Your task to perform on an android device: turn on location history Image 0: 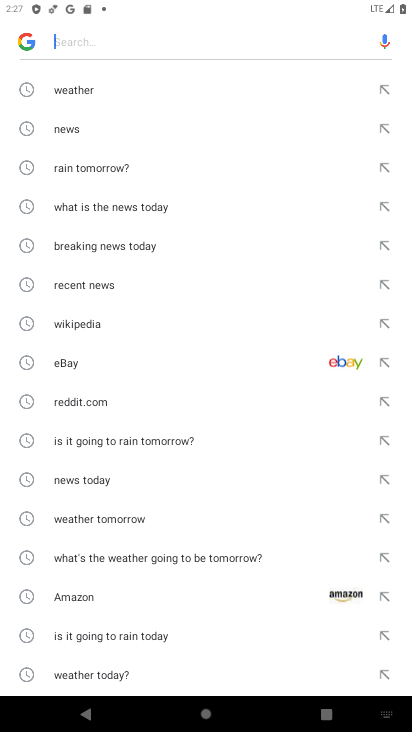
Step 0: press back button
Your task to perform on an android device: turn on location history Image 1: 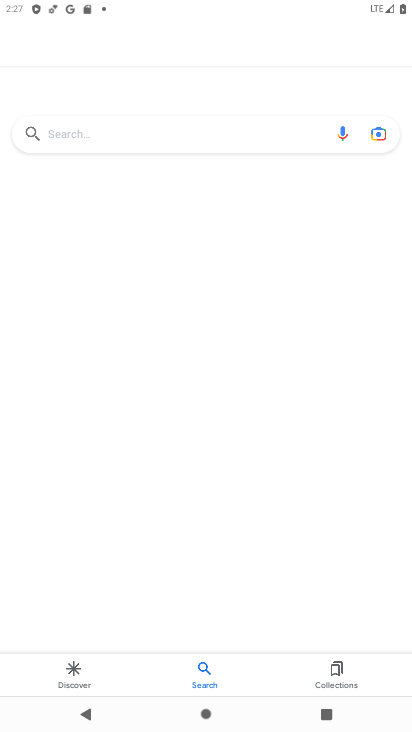
Step 1: press back button
Your task to perform on an android device: turn on location history Image 2: 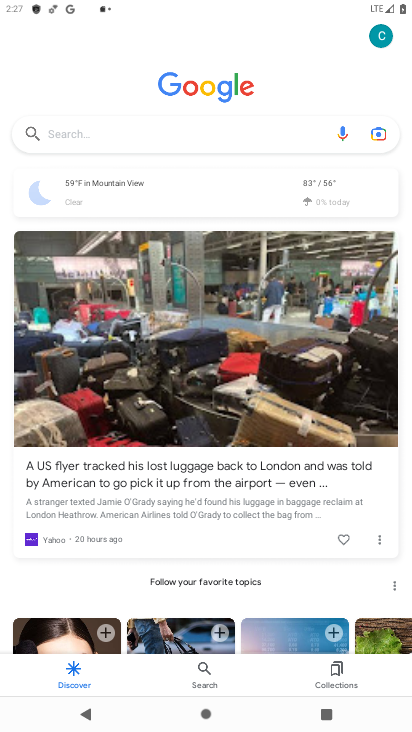
Step 2: press back button
Your task to perform on an android device: turn on location history Image 3: 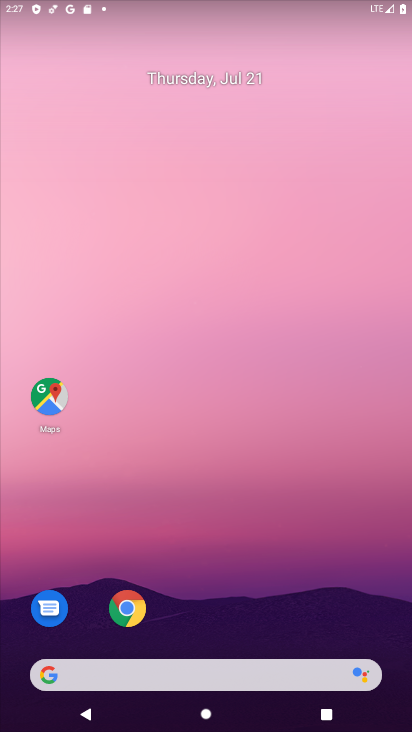
Step 3: drag from (216, 668) to (252, 10)
Your task to perform on an android device: turn on location history Image 4: 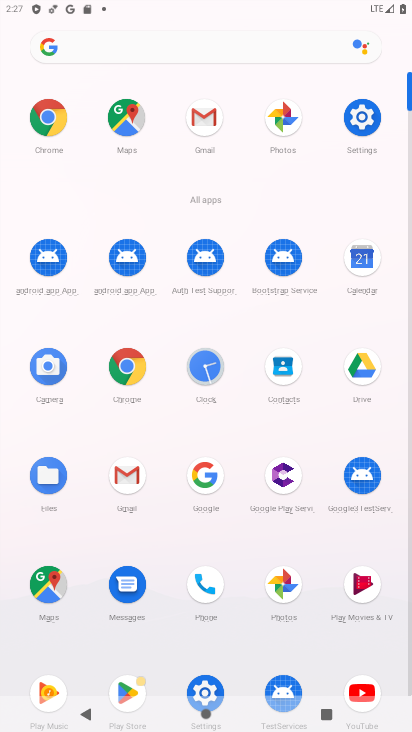
Step 4: click (356, 108)
Your task to perform on an android device: turn on location history Image 5: 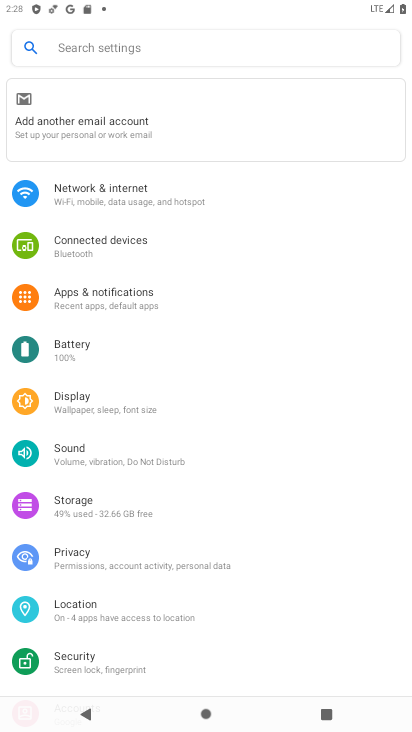
Step 5: click (62, 603)
Your task to perform on an android device: turn on location history Image 6: 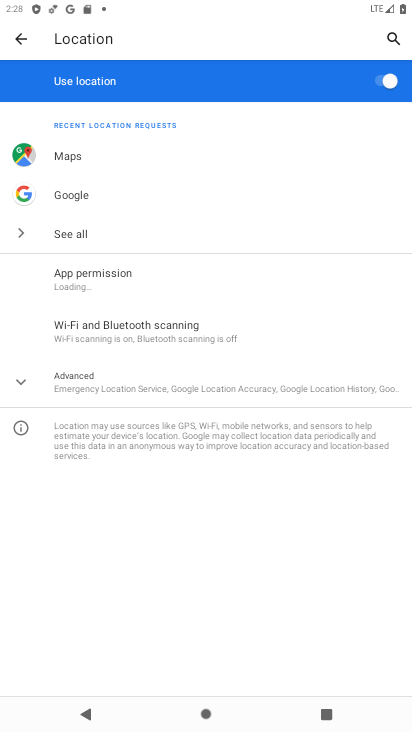
Step 6: click (80, 360)
Your task to perform on an android device: turn on location history Image 7: 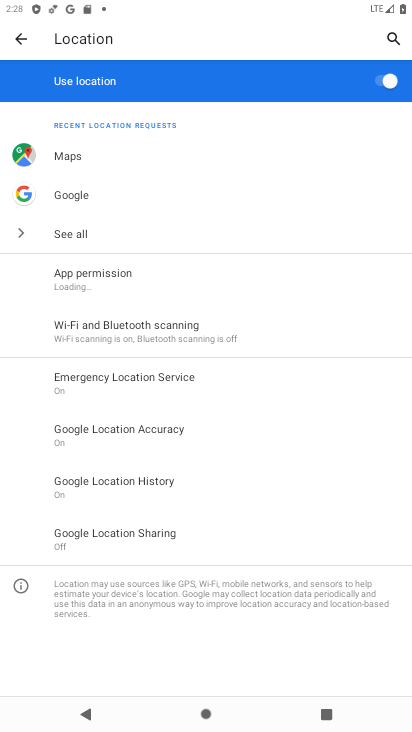
Step 7: click (120, 484)
Your task to perform on an android device: turn on location history Image 8: 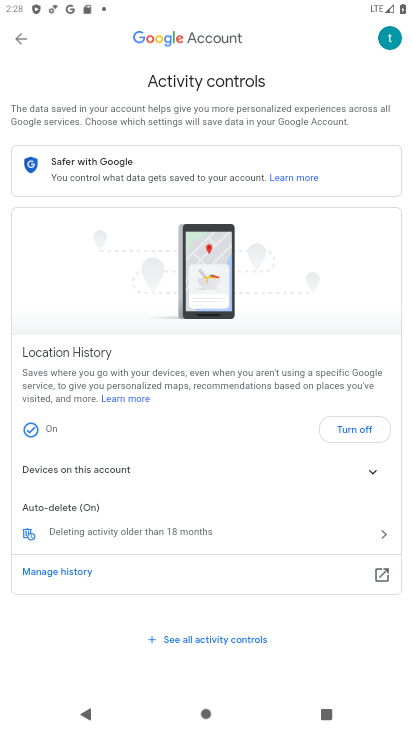
Step 8: task complete